Your task to perform on an android device: Open Google Maps and go to "Timeline" Image 0: 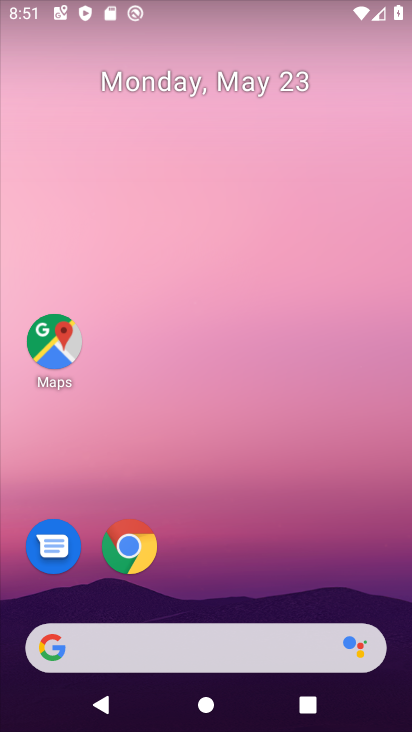
Step 0: click (53, 341)
Your task to perform on an android device: Open Google Maps and go to "Timeline" Image 1: 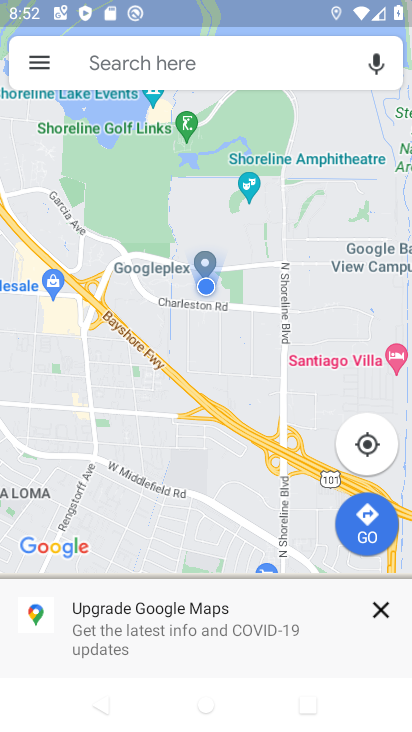
Step 1: click (39, 67)
Your task to perform on an android device: Open Google Maps and go to "Timeline" Image 2: 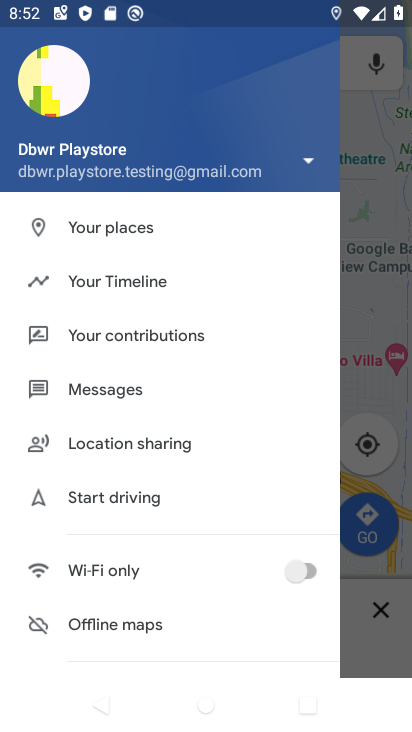
Step 2: click (111, 285)
Your task to perform on an android device: Open Google Maps and go to "Timeline" Image 3: 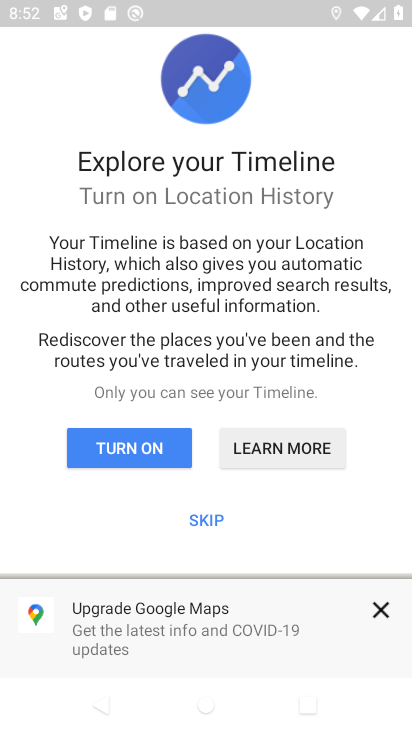
Step 3: click (206, 519)
Your task to perform on an android device: Open Google Maps and go to "Timeline" Image 4: 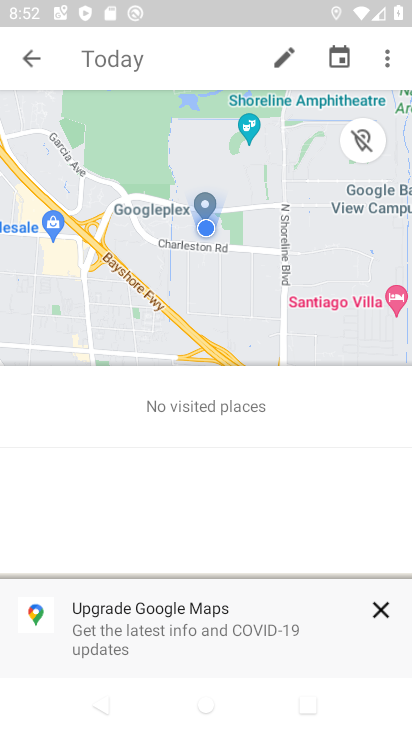
Step 4: click (375, 607)
Your task to perform on an android device: Open Google Maps and go to "Timeline" Image 5: 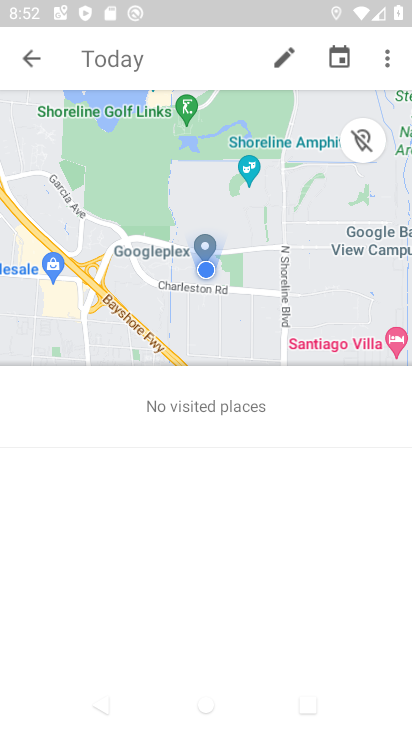
Step 5: task complete